Your task to perform on an android device: Open Chrome and go to the settings page Image 0: 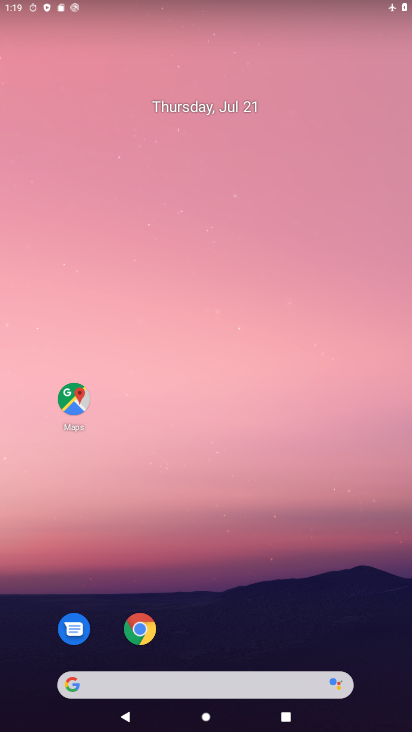
Step 0: drag from (27, 690) to (151, 234)
Your task to perform on an android device: Open Chrome and go to the settings page Image 1: 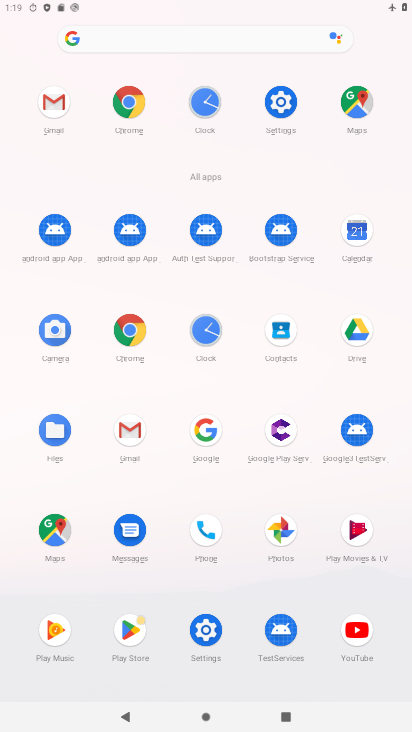
Step 1: click (127, 340)
Your task to perform on an android device: Open Chrome and go to the settings page Image 2: 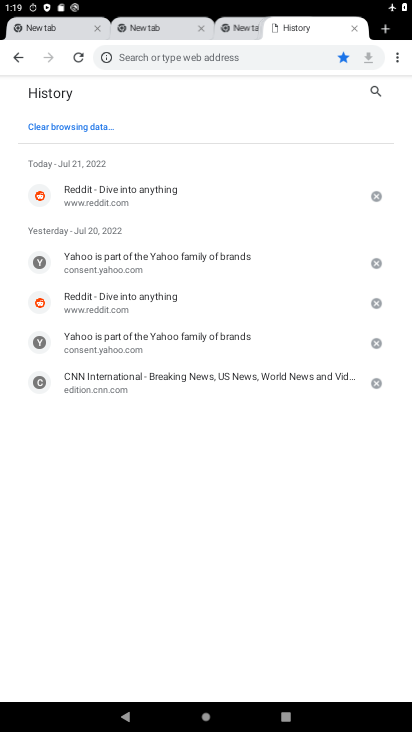
Step 2: click (397, 60)
Your task to perform on an android device: Open Chrome and go to the settings page Image 3: 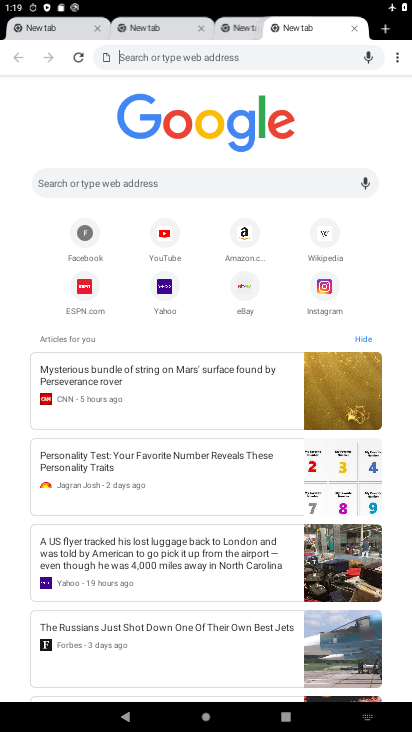
Step 3: click (398, 52)
Your task to perform on an android device: Open Chrome and go to the settings page Image 4: 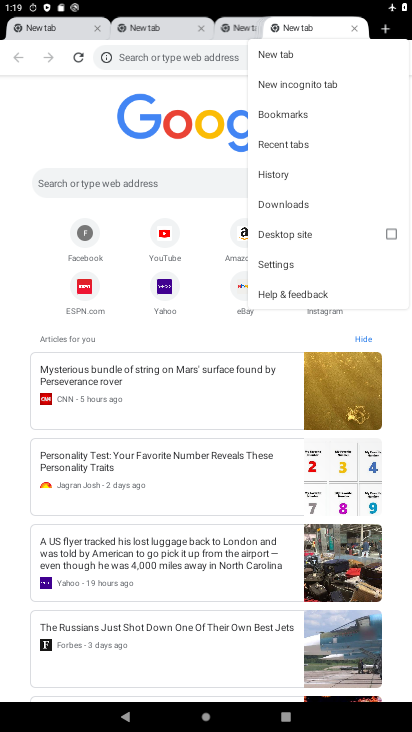
Step 4: click (272, 259)
Your task to perform on an android device: Open Chrome and go to the settings page Image 5: 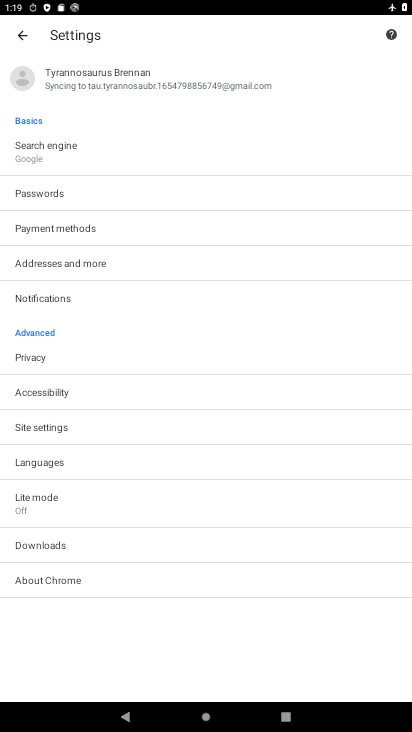
Step 5: task complete